Your task to perform on an android device: turn notification dots off Image 0: 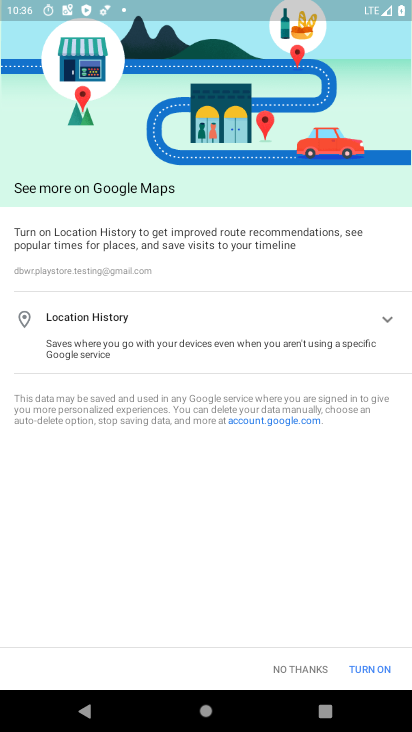
Step 0: press home button
Your task to perform on an android device: turn notification dots off Image 1: 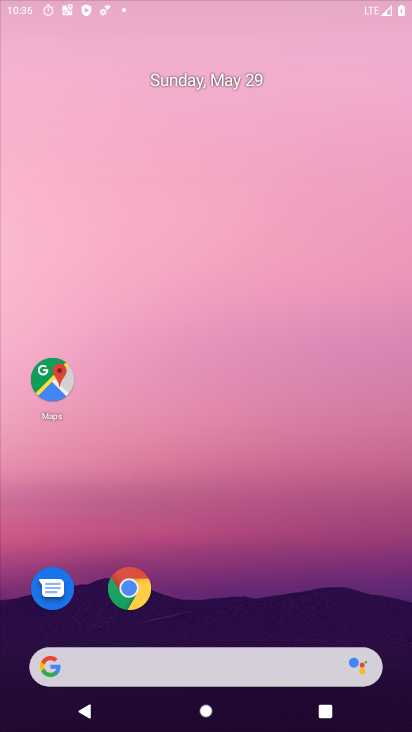
Step 1: drag from (230, 587) to (257, 147)
Your task to perform on an android device: turn notification dots off Image 2: 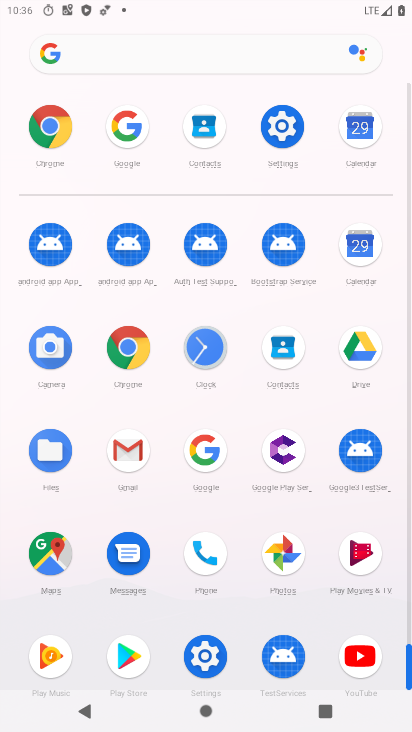
Step 2: click (220, 657)
Your task to perform on an android device: turn notification dots off Image 3: 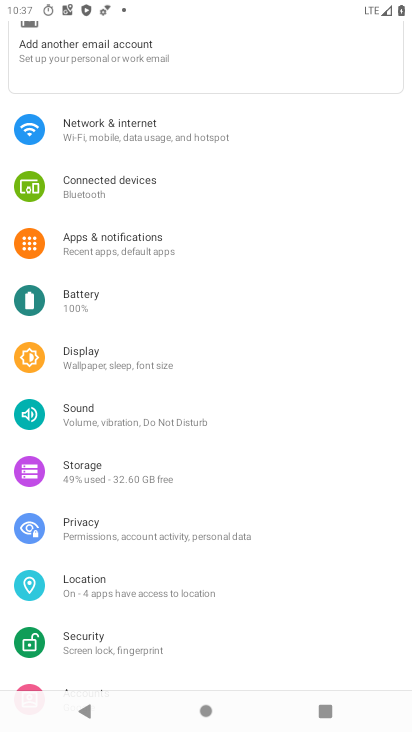
Step 3: click (160, 239)
Your task to perform on an android device: turn notification dots off Image 4: 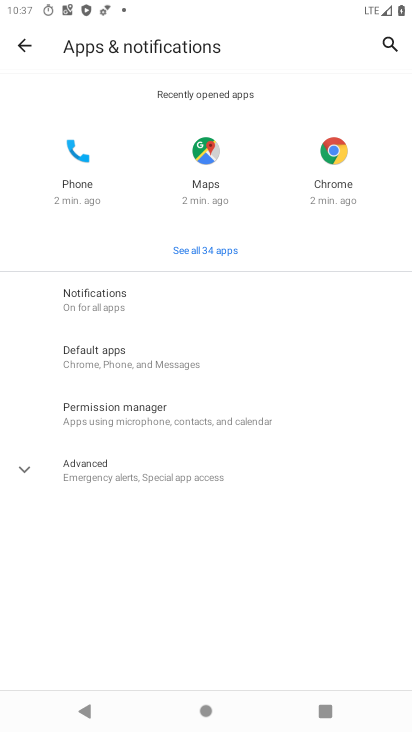
Step 4: click (171, 473)
Your task to perform on an android device: turn notification dots off Image 5: 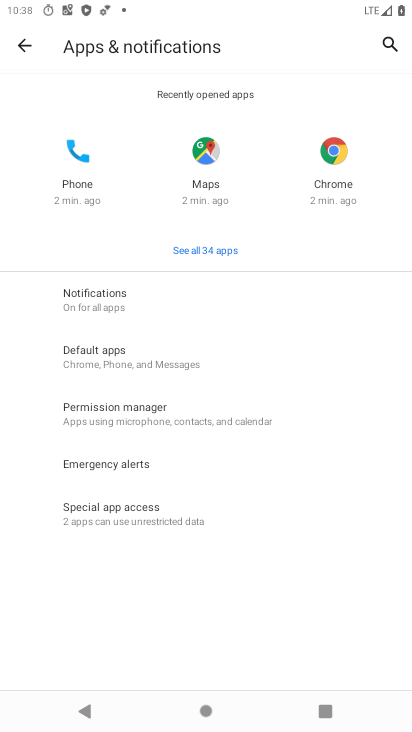
Step 5: click (168, 307)
Your task to perform on an android device: turn notification dots off Image 6: 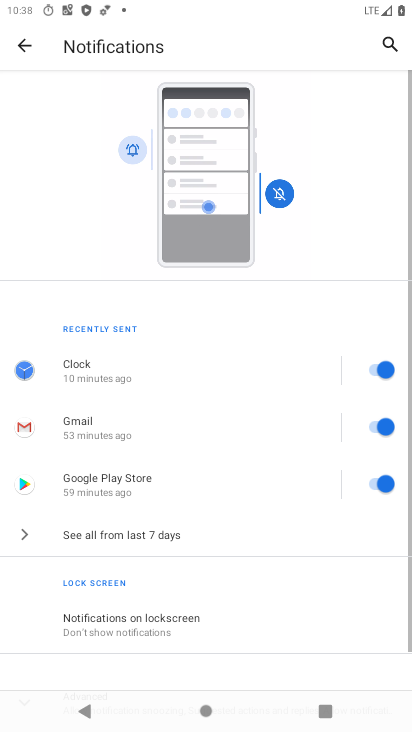
Step 6: drag from (208, 566) to (252, 178)
Your task to perform on an android device: turn notification dots off Image 7: 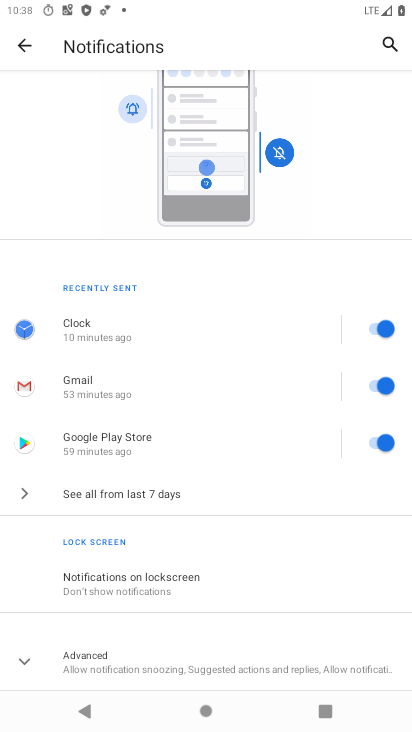
Step 7: click (156, 658)
Your task to perform on an android device: turn notification dots off Image 8: 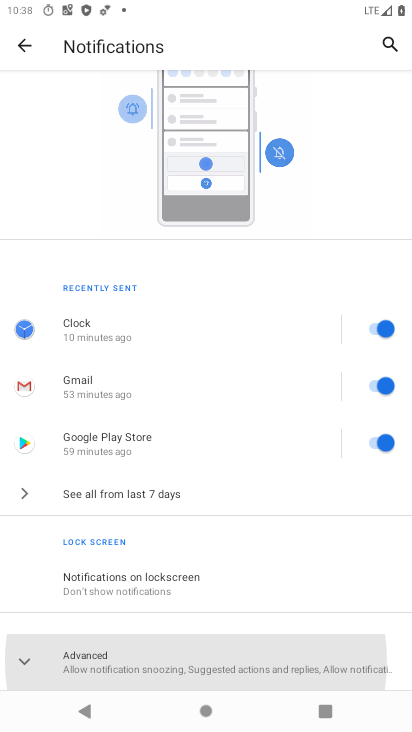
Step 8: task complete